Your task to perform on an android device: open a new tab in the chrome app Image 0: 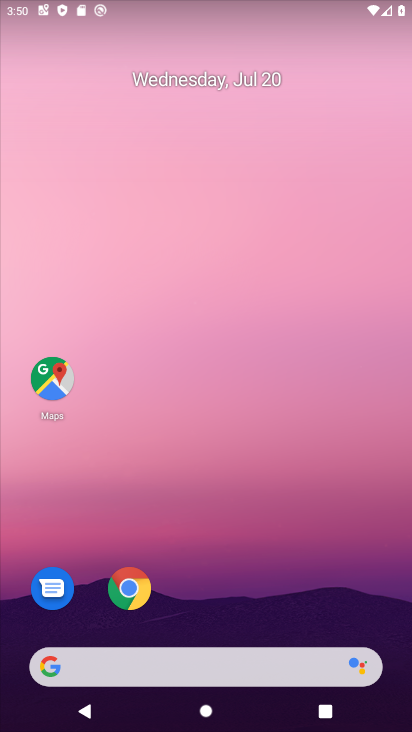
Step 0: drag from (284, 233) to (315, 0)
Your task to perform on an android device: open a new tab in the chrome app Image 1: 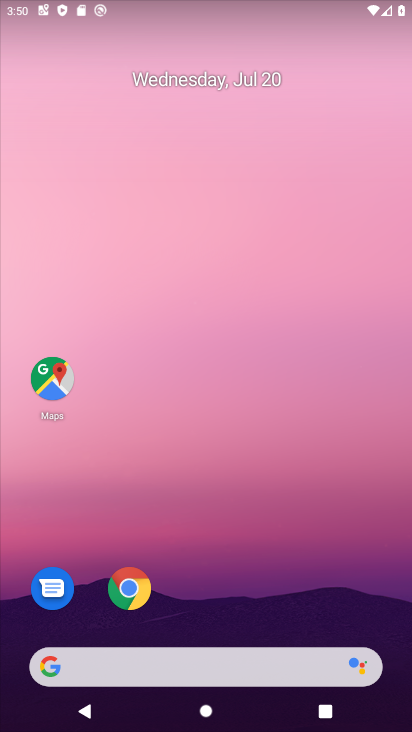
Step 1: drag from (275, 550) to (295, 52)
Your task to perform on an android device: open a new tab in the chrome app Image 2: 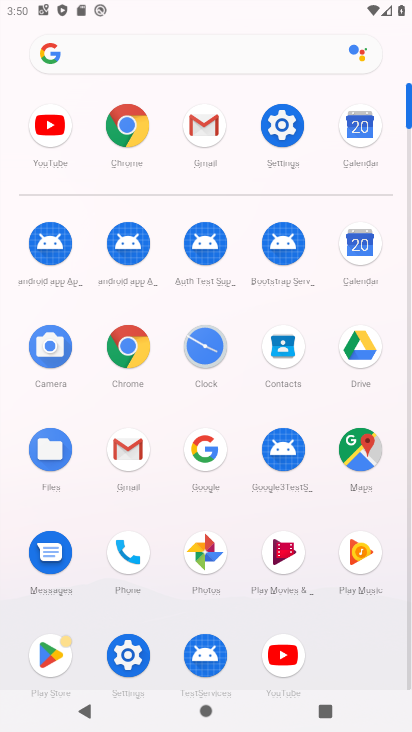
Step 2: click (124, 127)
Your task to perform on an android device: open a new tab in the chrome app Image 3: 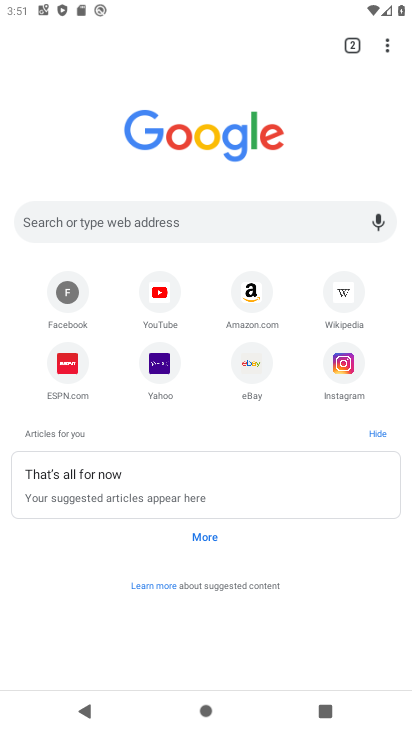
Step 3: task complete